Your task to perform on an android device: Go to CNN.com Image 0: 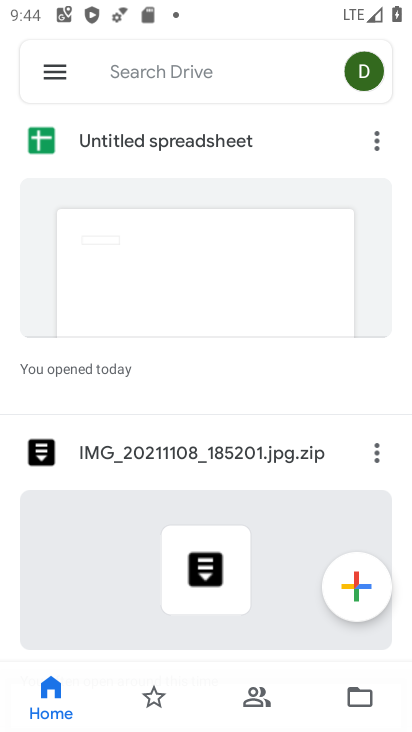
Step 0: press home button
Your task to perform on an android device: Go to CNN.com Image 1: 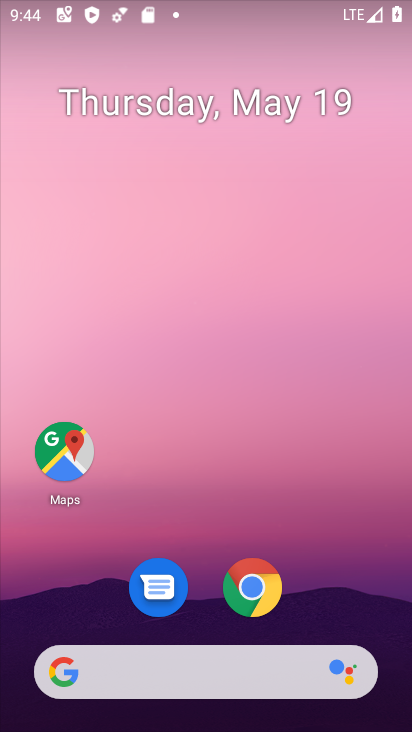
Step 1: click (136, 672)
Your task to perform on an android device: Go to CNN.com Image 2: 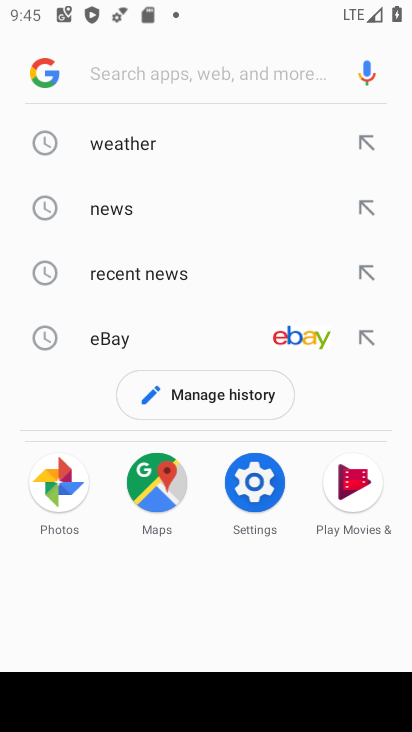
Step 2: type "cnn.com"
Your task to perform on an android device: Go to CNN.com Image 3: 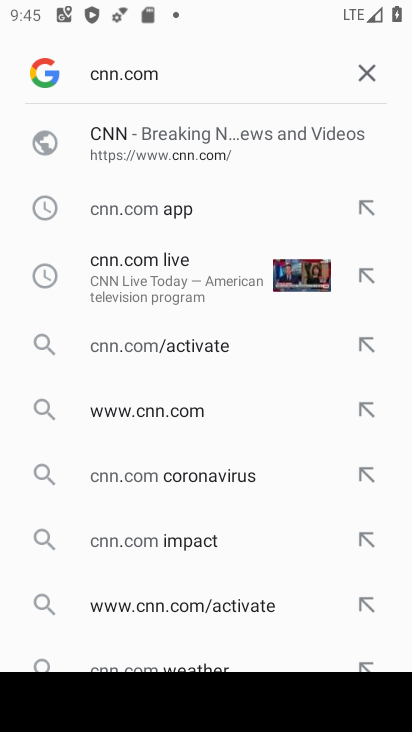
Step 3: click (230, 141)
Your task to perform on an android device: Go to CNN.com Image 4: 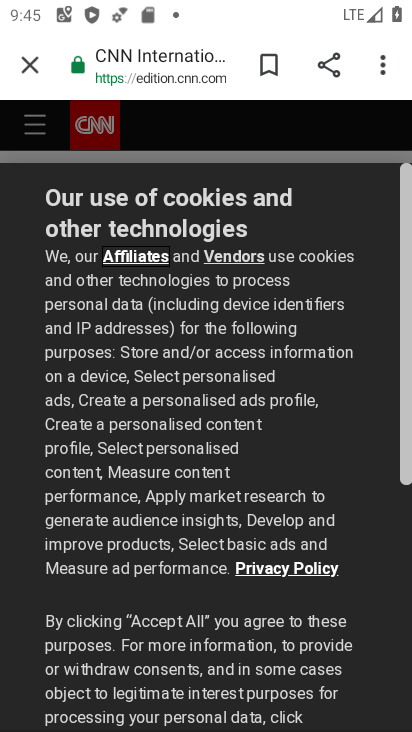
Step 4: task complete